Your task to perform on an android device: toggle sleep mode Image 0: 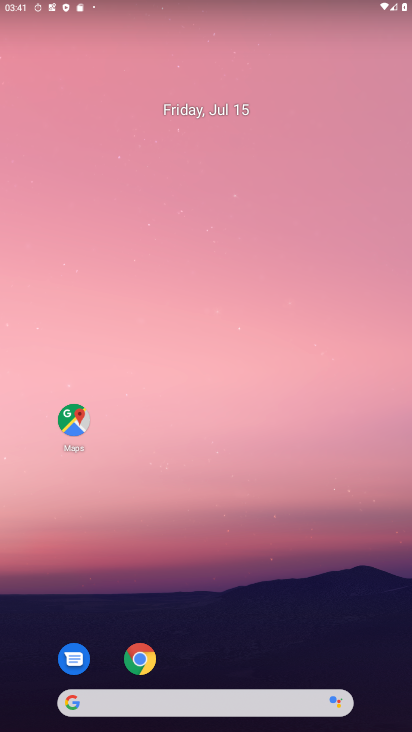
Step 0: drag from (296, 610) to (296, 48)
Your task to perform on an android device: toggle sleep mode Image 1: 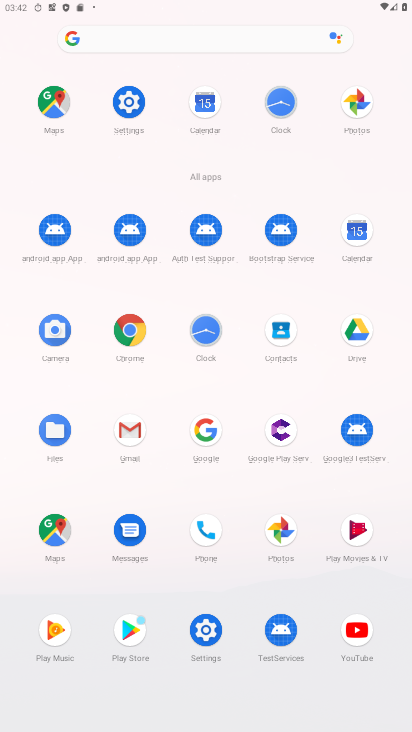
Step 1: click (125, 110)
Your task to perform on an android device: toggle sleep mode Image 2: 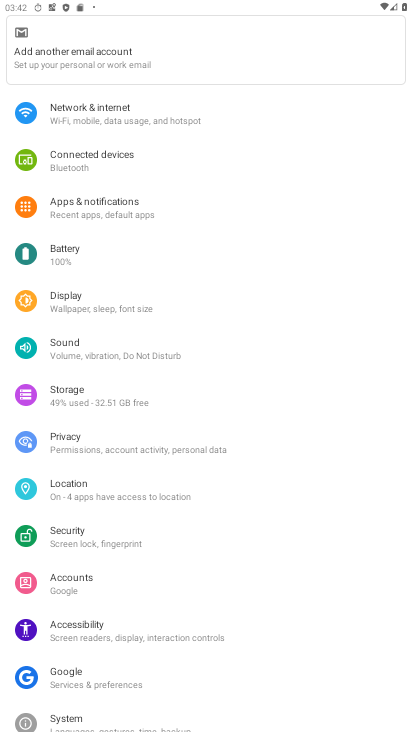
Step 2: click (116, 309)
Your task to perform on an android device: toggle sleep mode Image 3: 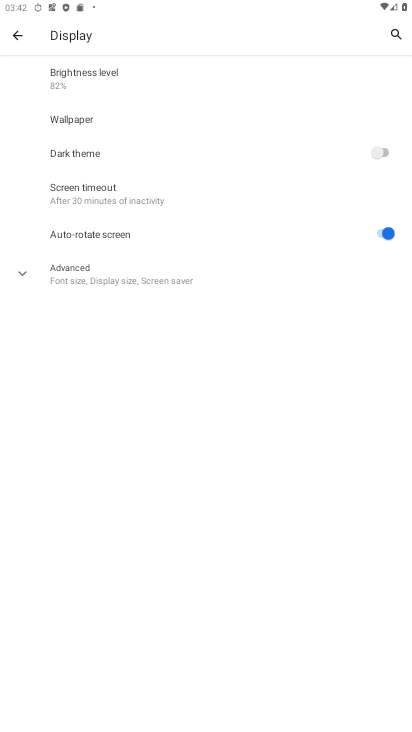
Step 3: click (179, 277)
Your task to perform on an android device: toggle sleep mode Image 4: 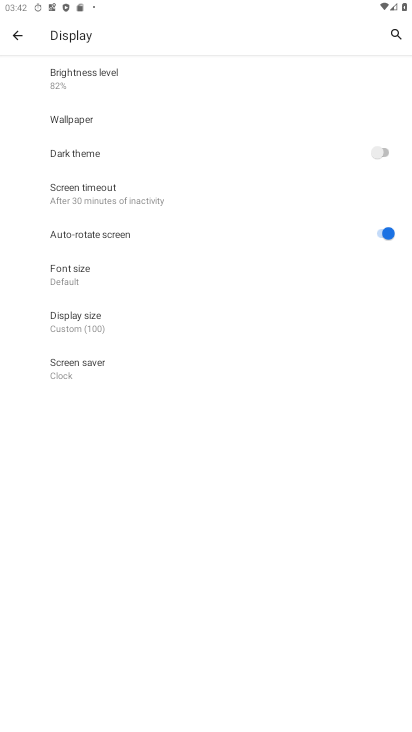
Step 4: task complete